Your task to perform on an android device: Open display settings Image 0: 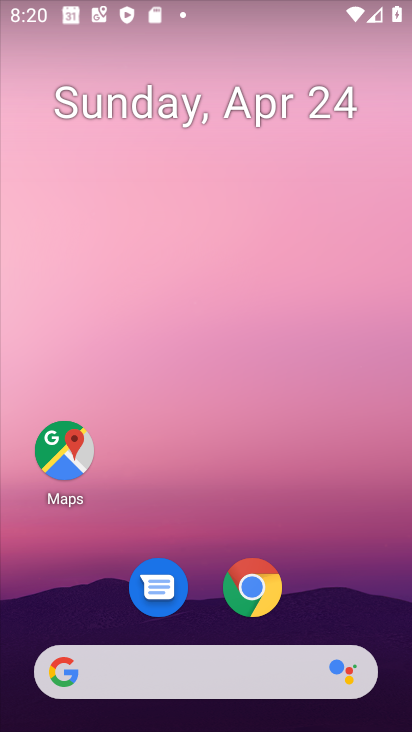
Step 0: drag from (351, 597) to (333, 138)
Your task to perform on an android device: Open display settings Image 1: 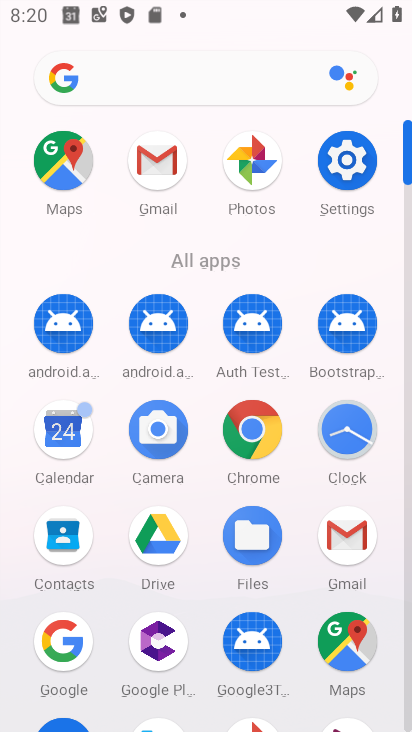
Step 1: click (349, 182)
Your task to perform on an android device: Open display settings Image 2: 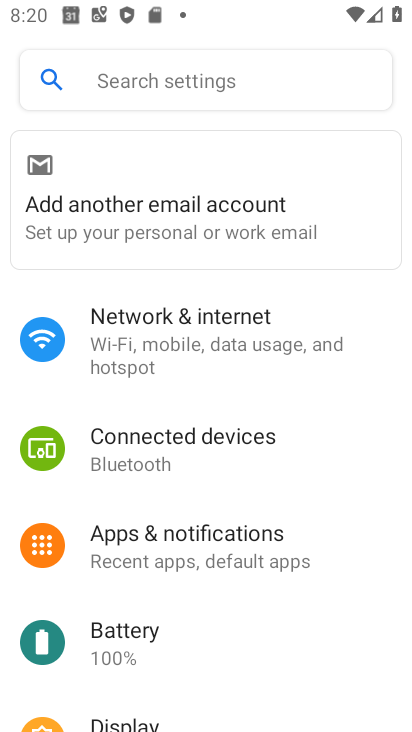
Step 2: click (112, 720)
Your task to perform on an android device: Open display settings Image 3: 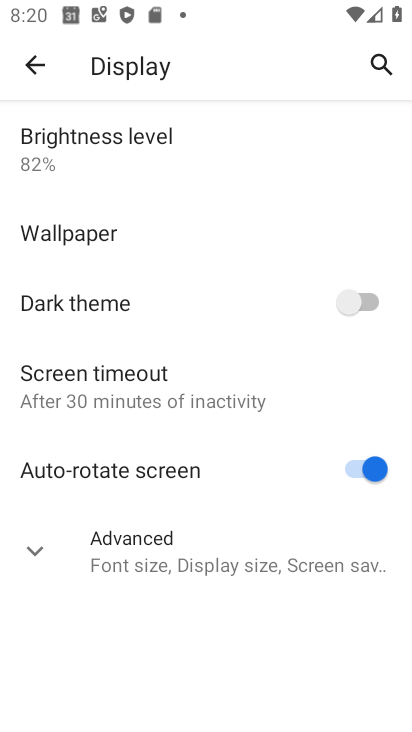
Step 3: task complete